Your task to perform on an android device: turn notification dots on Image 0: 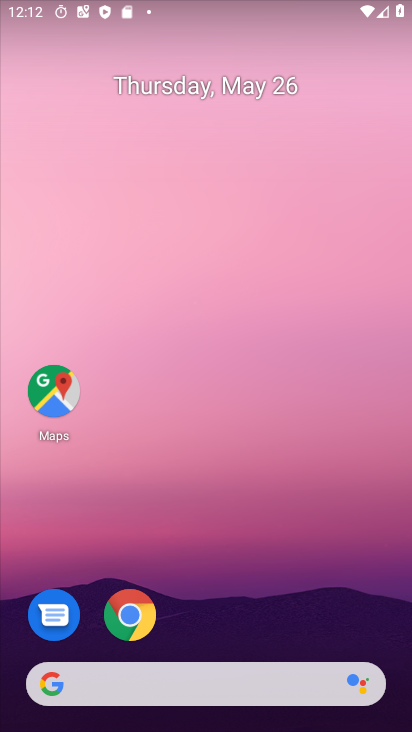
Step 0: drag from (253, 639) to (142, 145)
Your task to perform on an android device: turn notification dots on Image 1: 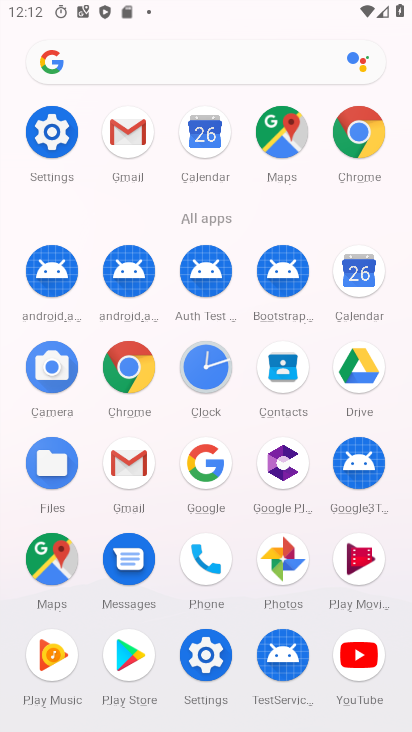
Step 1: click (54, 139)
Your task to perform on an android device: turn notification dots on Image 2: 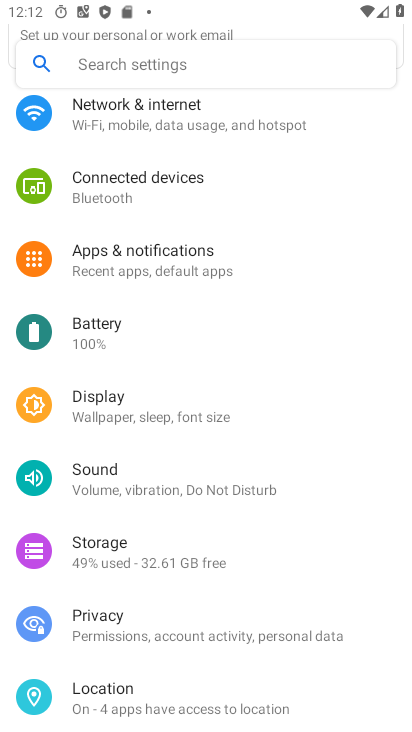
Step 2: click (186, 264)
Your task to perform on an android device: turn notification dots on Image 3: 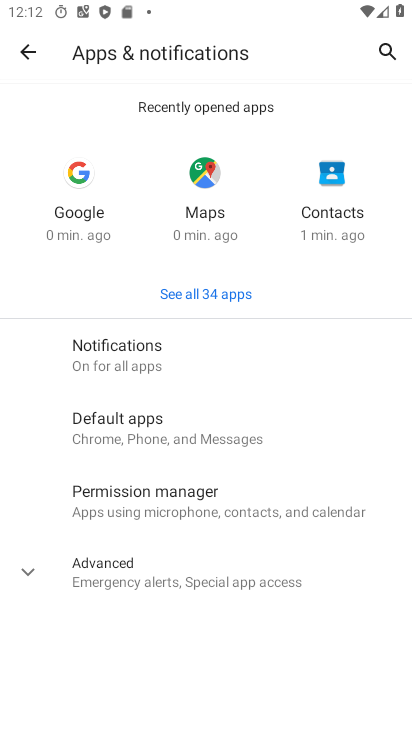
Step 3: click (203, 353)
Your task to perform on an android device: turn notification dots on Image 4: 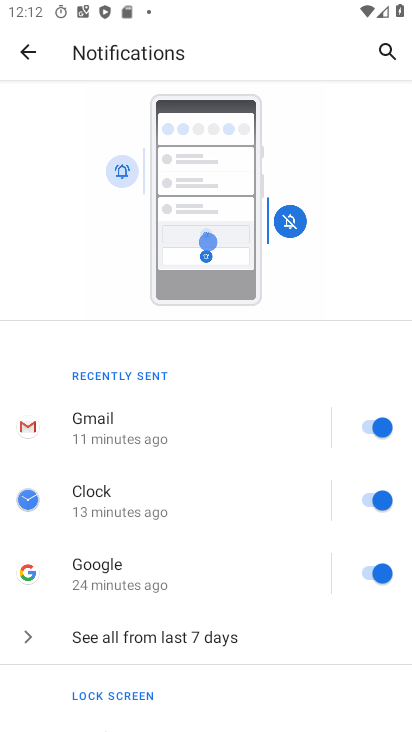
Step 4: drag from (256, 669) to (177, 252)
Your task to perform on an android device: turn notification dots on Image 5: 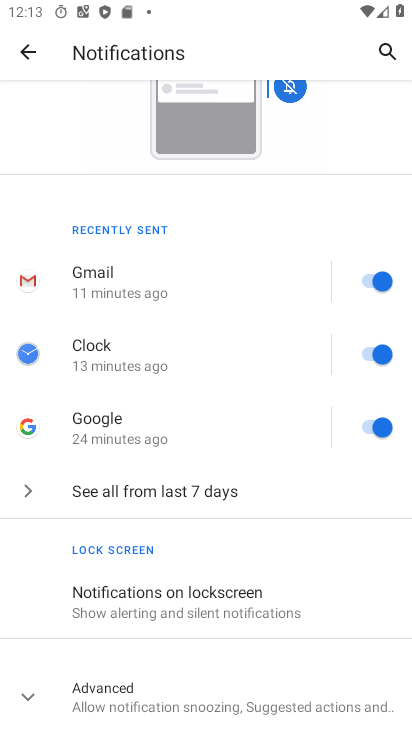
Step 5: drag from (207, 634) to (146, 387)
Your task to perform on an android device: turn notification dots on Image 6: 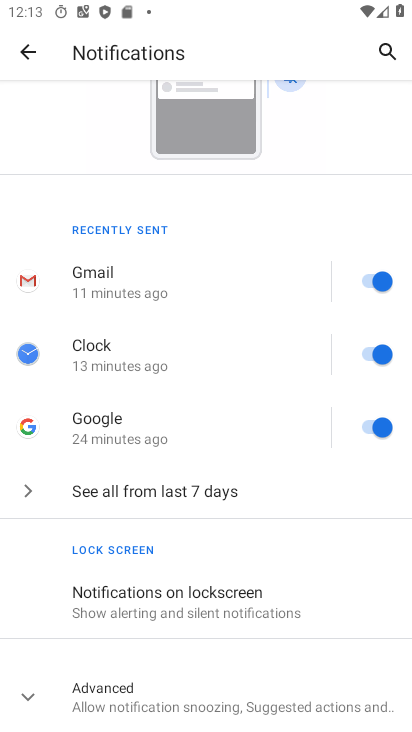
Step 6: click (234, 694)
Your task to perform on an android device: turn notification dots on Image 7: 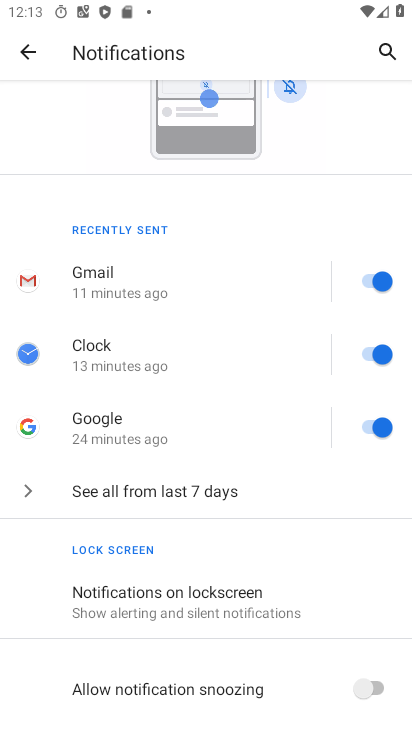
Step 7: drag from (262, 686) to (203, 318)
Your task to perform on an android device: turn notification dots on Image 8: 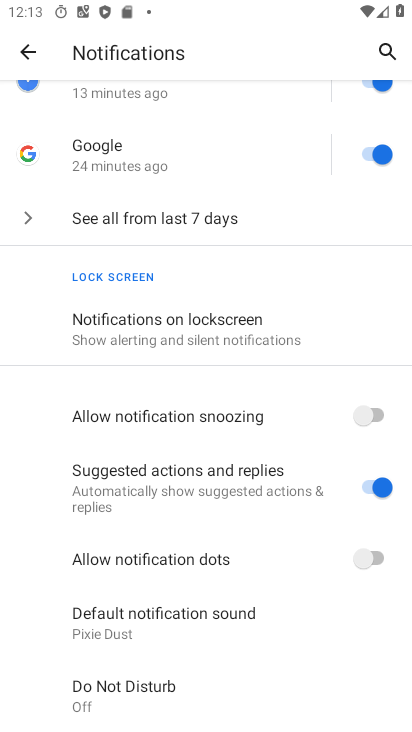
Step 8: click (372, 563)
Your task to perform on an android device: turn notification dots on Image 9: 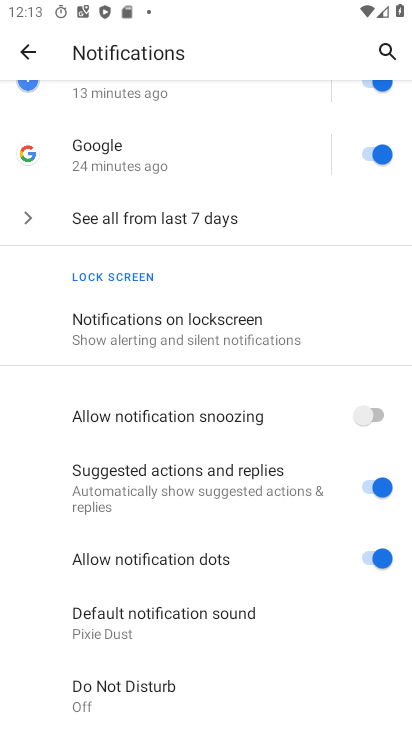
Step 9: task complete